Your task to perform on an android device: Open ESPN.com Image 0: 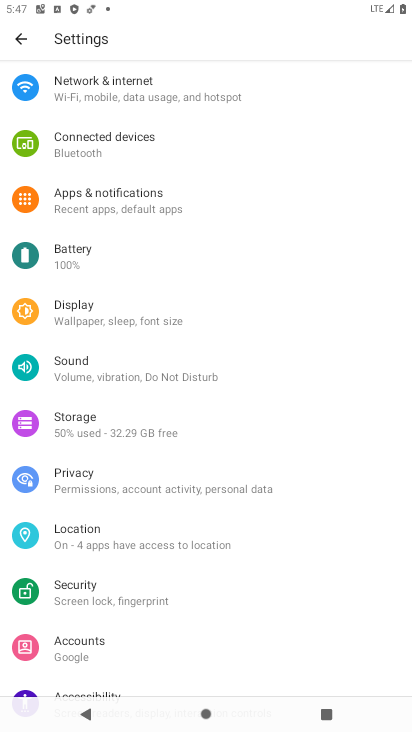
Step 0: press home button
Your task to perform on an android device: Open ESPN.com Image 1: 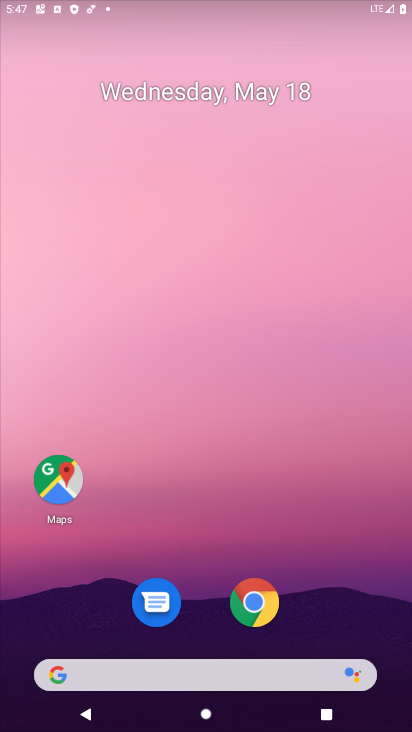
Step 1: drag from (262, 652) to (241, 13)
Your task to perform on an android device: Open ESPN.com Image 2: 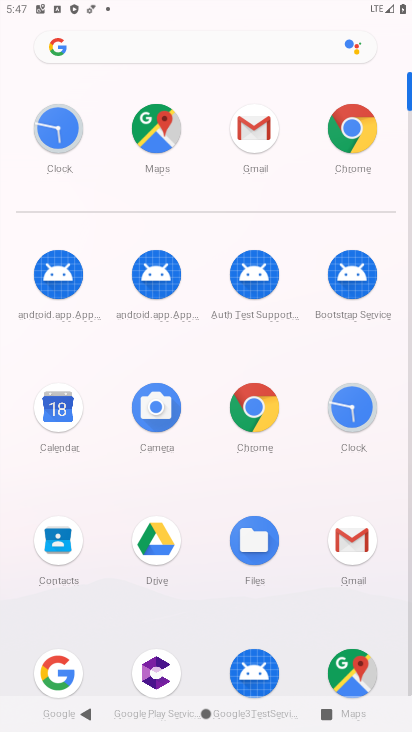
Step 2: click (241, 400)
Your task to perform on an android device: Open ESPN.com Image 3: 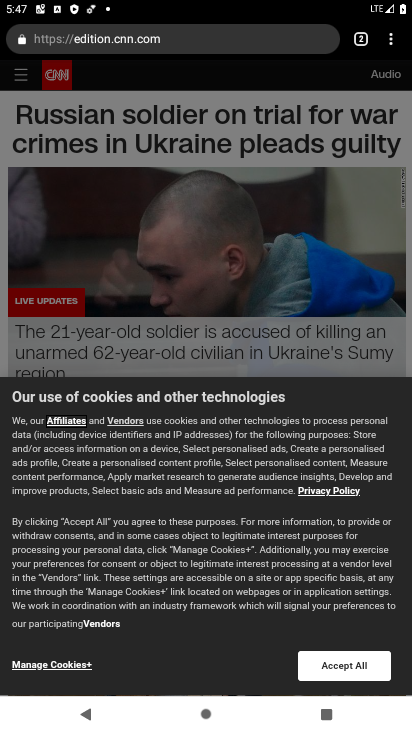
Step 3: click (186, 40)
Your task to perform on an android device: Open ESPN.com Image 4: 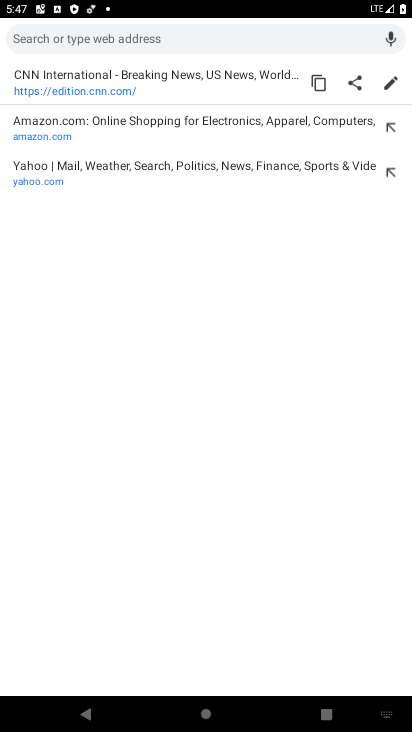
Step 4: type "espn.com"
Your task to perform on an android device: Open ESPN.com Image 5: 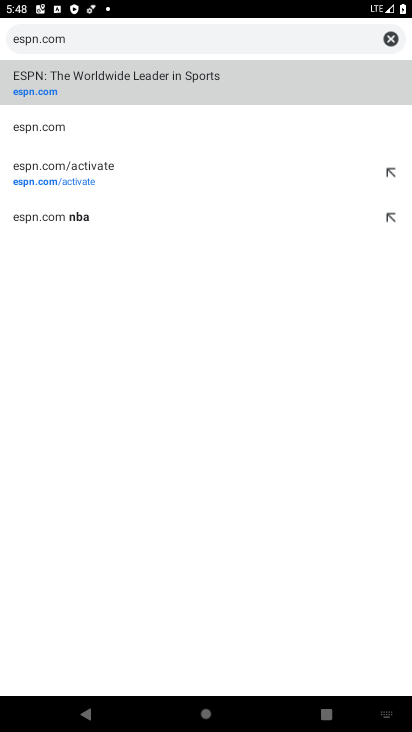
Step 5: click (237, 91)
Your task to perform on an android device: Open ESPN.com Image 6: 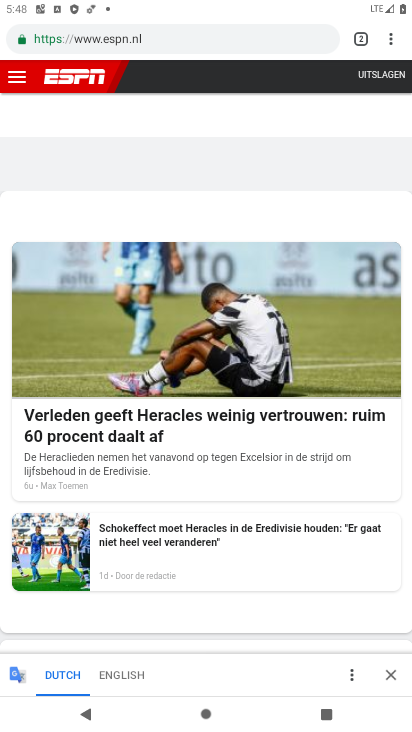
Step 6: task complete